Your task to perform on an android device: turn on the 12-hour format for clock Image 0: 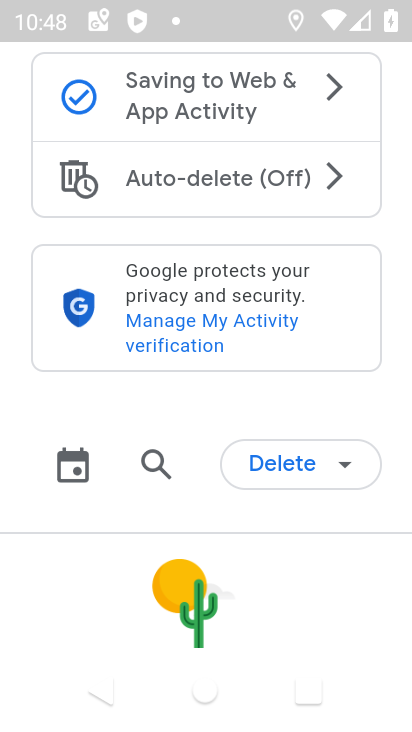
Step 0: press home button
Your task to perform on an android device: turn on the 12-hour format for clock Image 1: 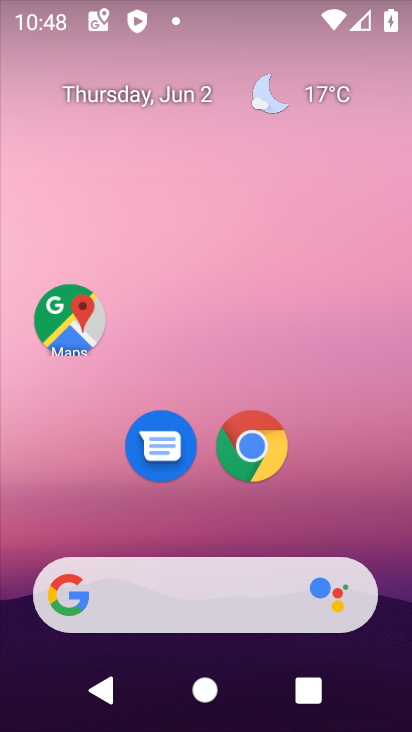
Step 1: drag from (309, 524) to (322, 139)
Your task to perform on an android device: turn on the 12-hour format for clock Image 2: 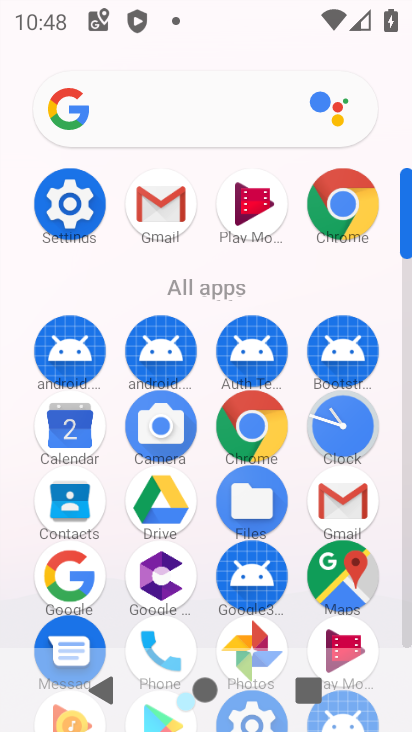
Step 2: drag from (190, 550) to (222, 229)
Your task to perform on an android device: turn on the 12-hour format for clock Image 3: 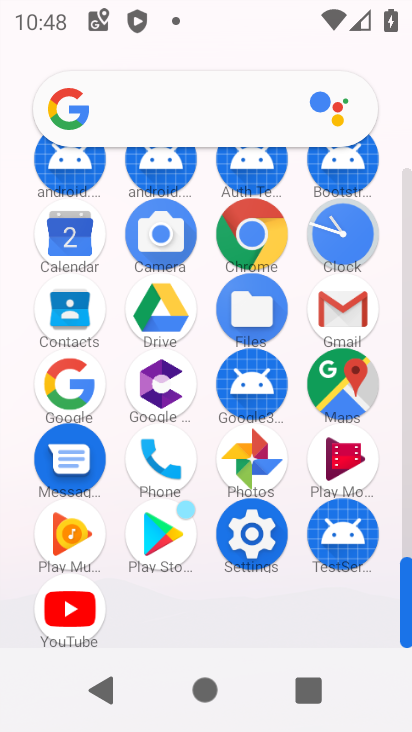
Step 3: click (334, 232)
Your task to perform on an android device: turn on the 12-hour format for clock Image 4: 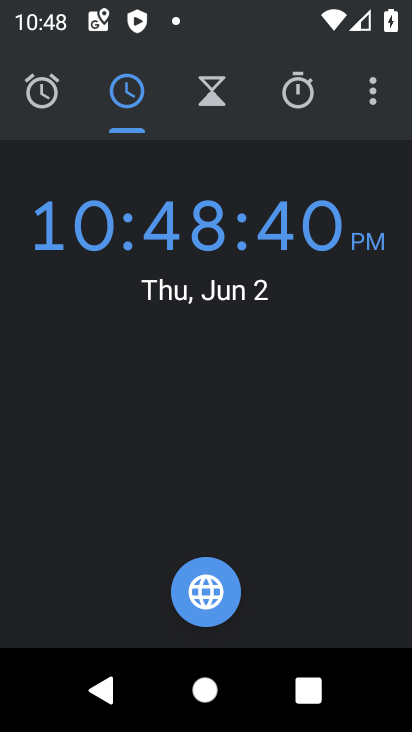
Step 4: drag from (368, 85) to (195, 197)
Your task to perform on an android device: turn on the 12-hour format for clock Image 5: 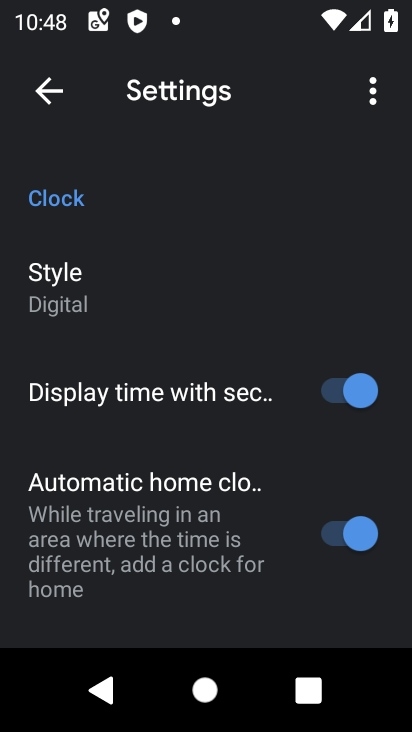
Step 5: drag from (180, 566) to (228, 108)
Your task to perform on an android device: turn on the 12-hour format for clock Image 6: 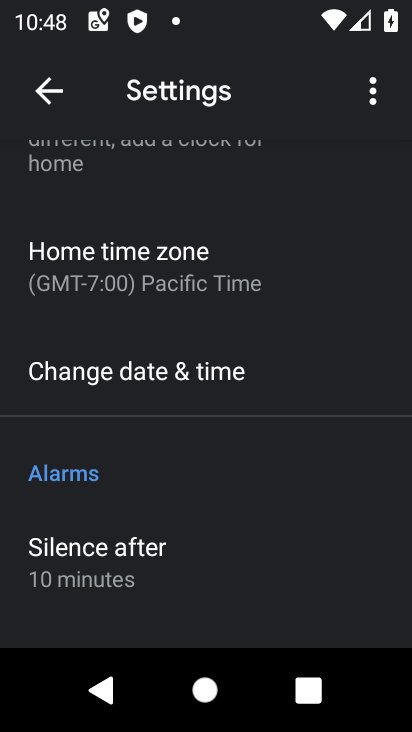
Step 6: click (198, 374)
Your task to perform on an android device: turn on the 12-hour format for clock Image 7: 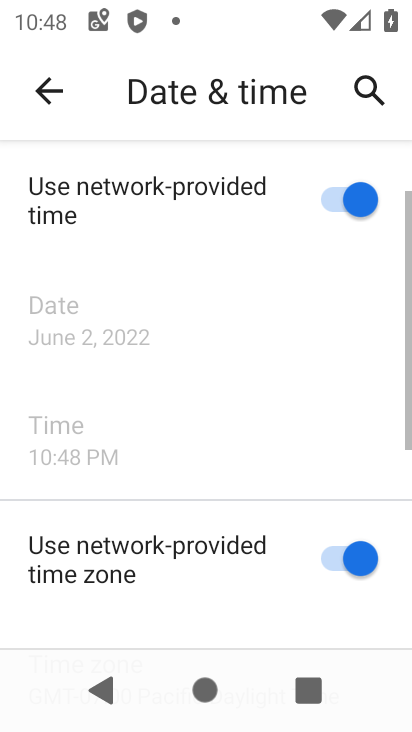
Step 7: task complete